Your task to perform on an android device: turn on bluetooth scan Image 0: 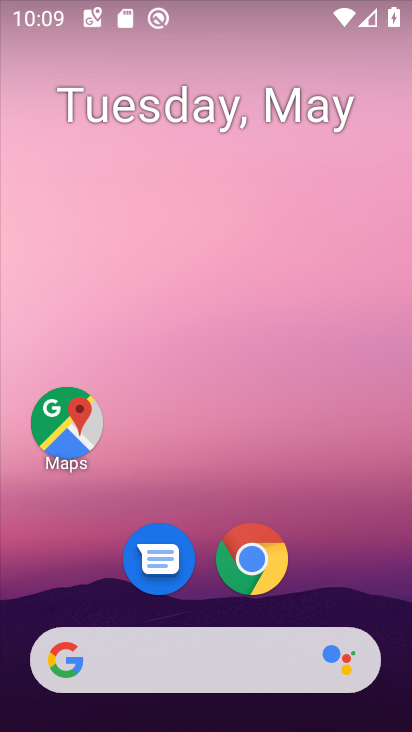
Step 0: drag from (385, 664) to (242, 132)
Your task to perform on an android device: turn on bluetooth scan Image 1: 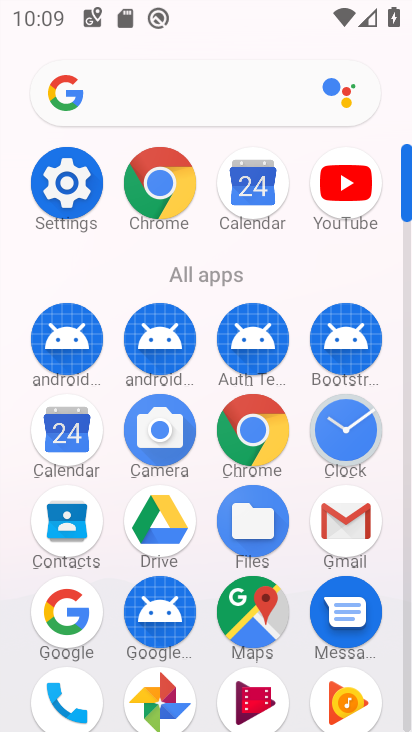
Step 1: click (45, 170)
Your task to perform on an android device: turn on bluetooth scan Image 2: 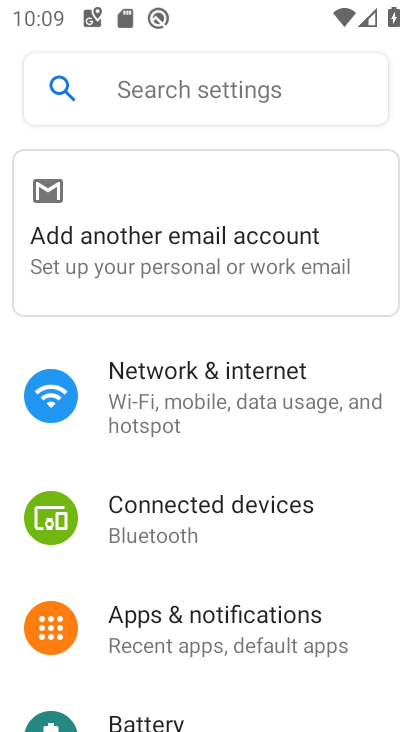
Step 2: drag from (203, 668) to (243, 225)
Your task to perform on an android device: turn on bluetooth scan Image 3: 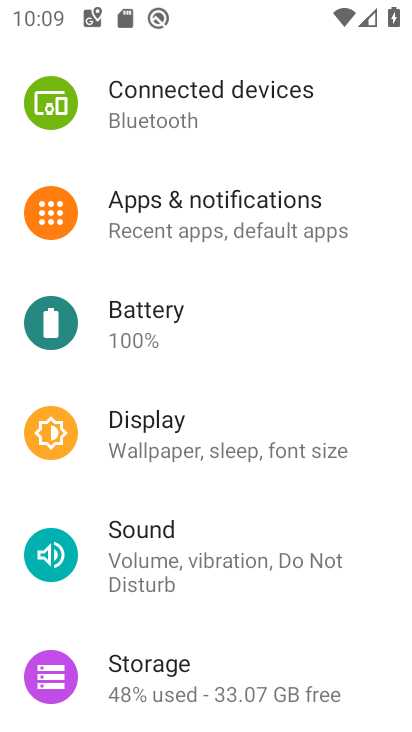
Step 3: drag from (141, 699) to (212, 243)
Your task to perform on an android device: turn on bluetooth scan Image 4: 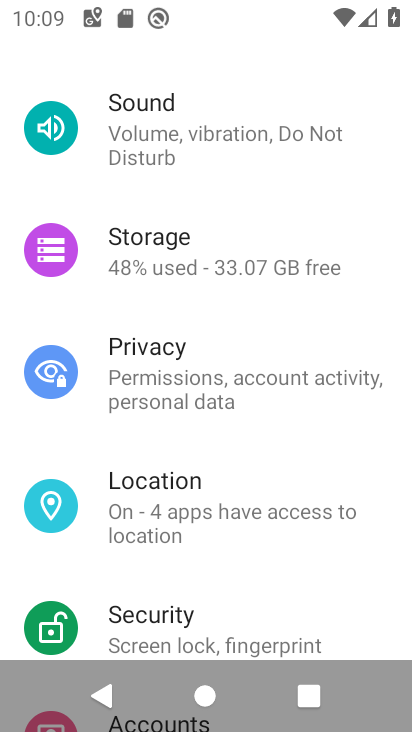
Step 4: click (188, 526)
Your task to perform on an android device: turn on bluetooth scan Image 5: 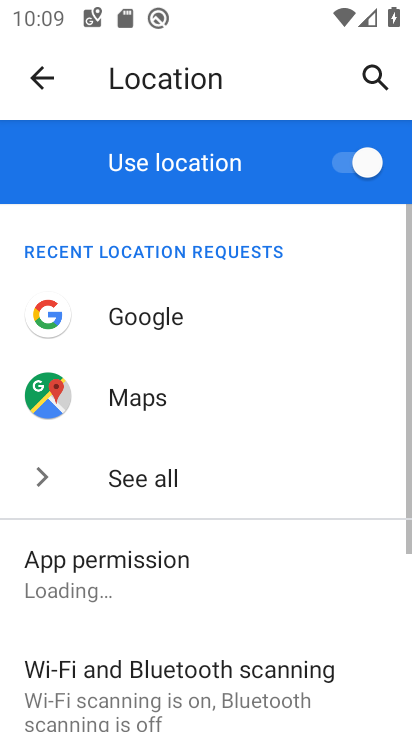
Step 5: drag from (168, 626) to (235, 261)
Your task to perform on an android device: turn on bluetooth scan Image 6: 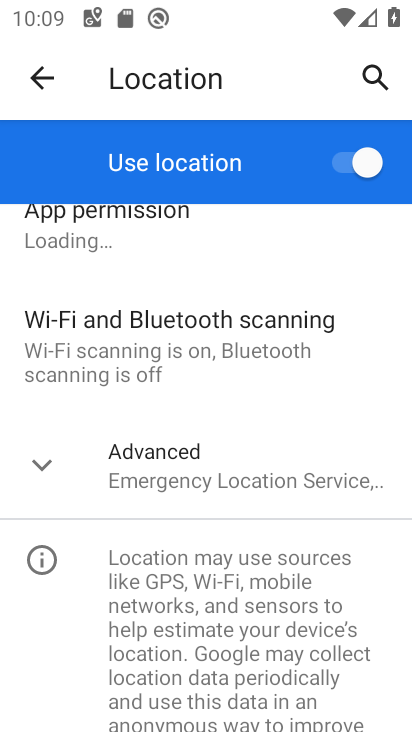
Step 6: click (194, 476)
Your task to perform on an android device: turn on bluetooth scan Image 7: 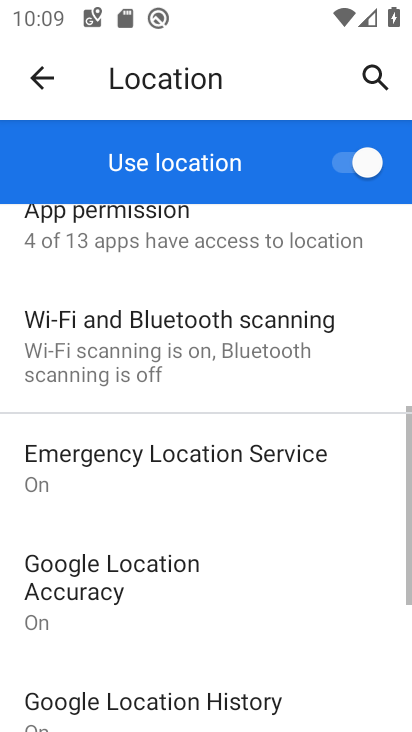
Step 7: click (213, 352)
Your task to perform on an android device: turn on bluetooth scan Image 8: 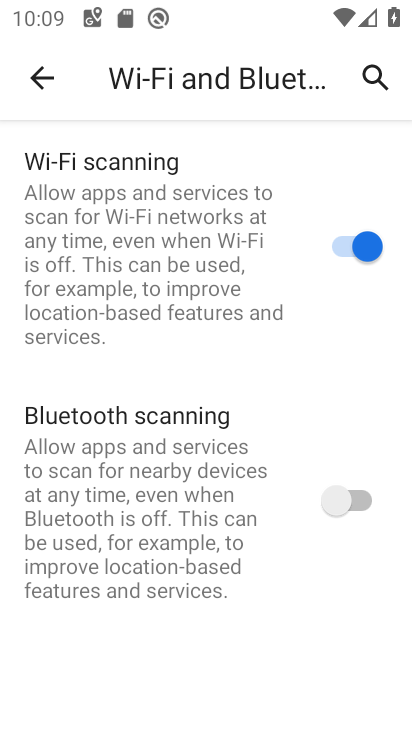
Step 8: click (313, 489)
Your task to perform on an android device: turn on bluetooth scan Image 9: 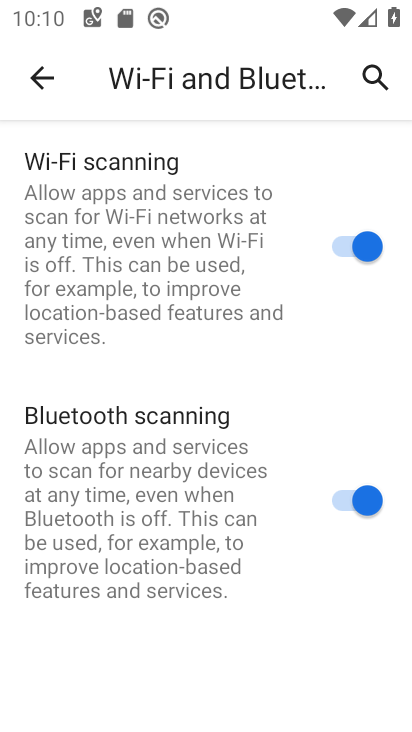
Step 9: task complete